Your task to perform on an android device: Go to Yahoo.com Image 0: 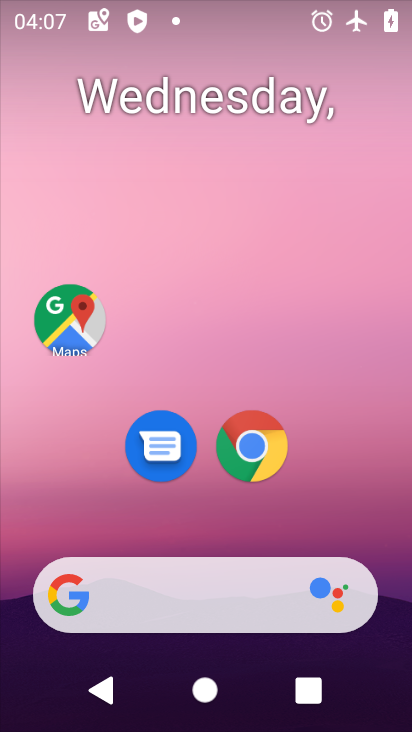
Step 0: click (236, 450)
Your task to perform on an android device: Go to Yahoo.com Image 1: 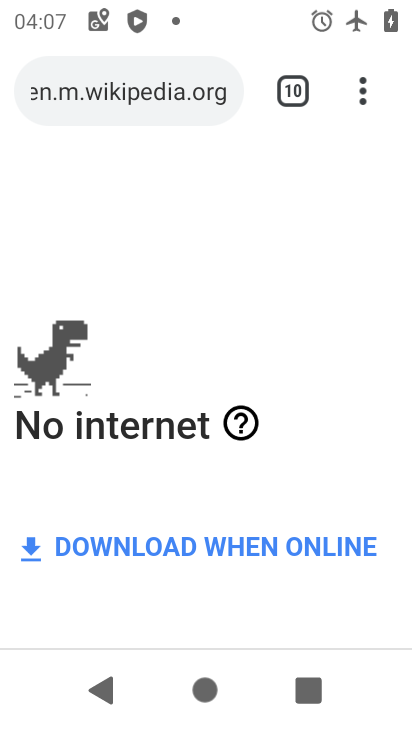
Step 1: click (289, 84)
Your task to perform on an android device: Go to Yahoo.com Image 2: 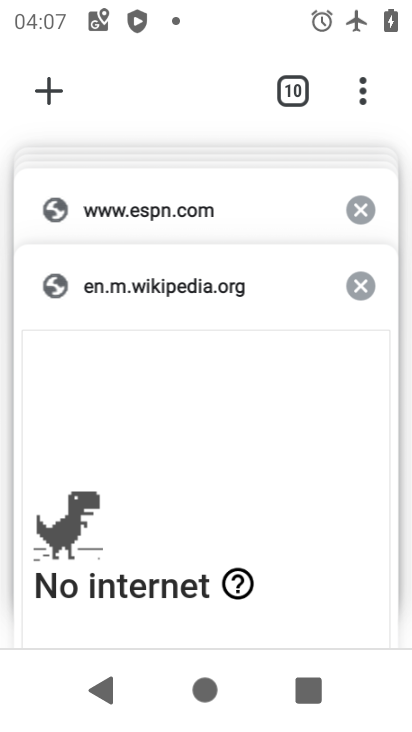
Step 2: click (45, 91)
Your task to perform on an android device: Go to Yahoo.com Image 3: 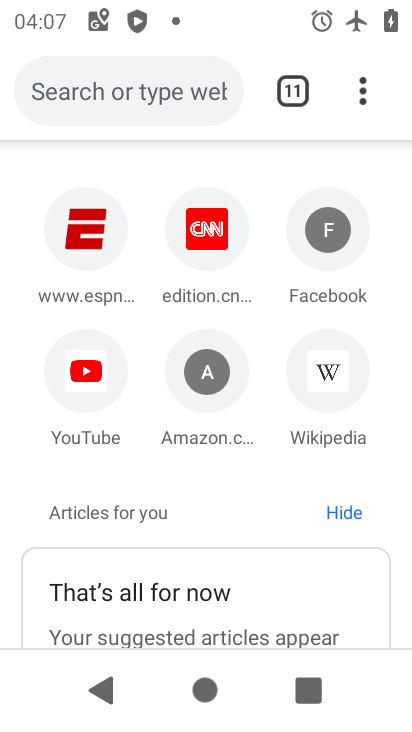
Step 3: click (152, 106)
Your task to perform on an android device: Go to Yahoo.com Image 4: 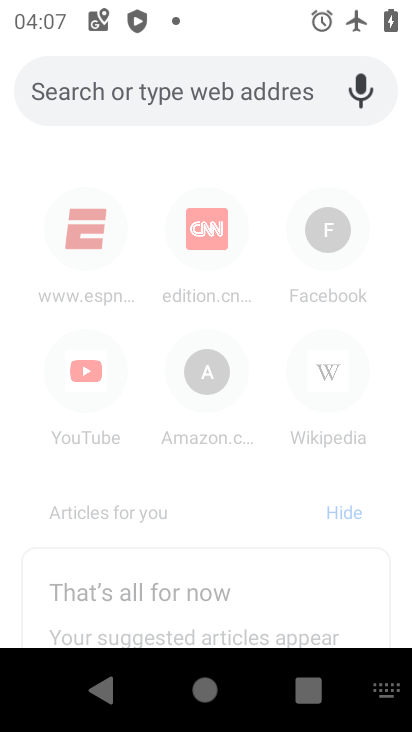
Step 4: type "Yahoo.com"
Your task to perform on an android device: Go to Yahoo.com Image 5: 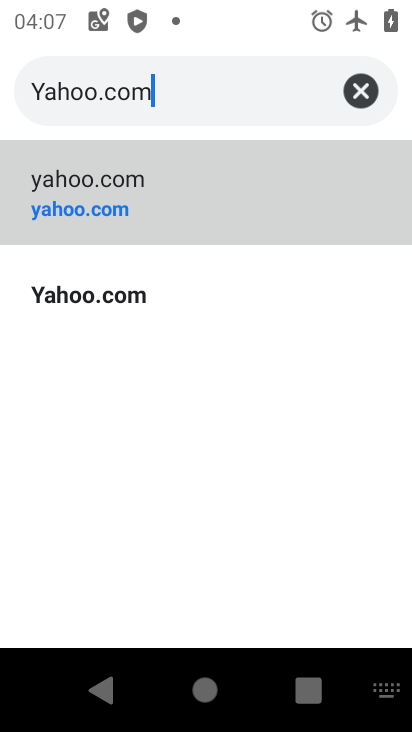
Step 5: click (203, 168)
Your task to perform on an android device: Go to Yahoo.com Image 6: 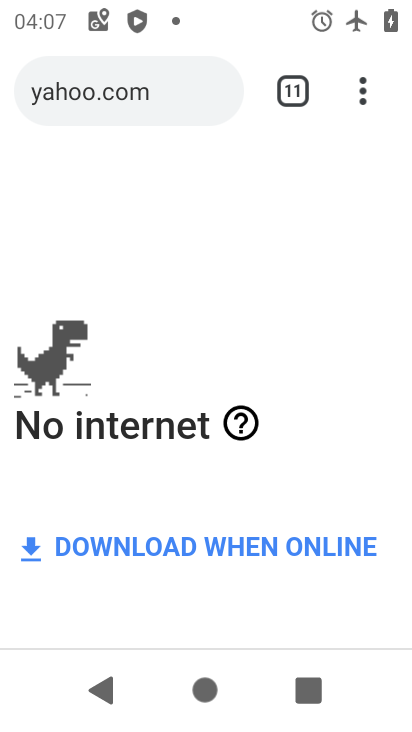
Step 6: task complete